Your task to perform on an android device: Open Youtube and go to the subscriptions tab Image 0: 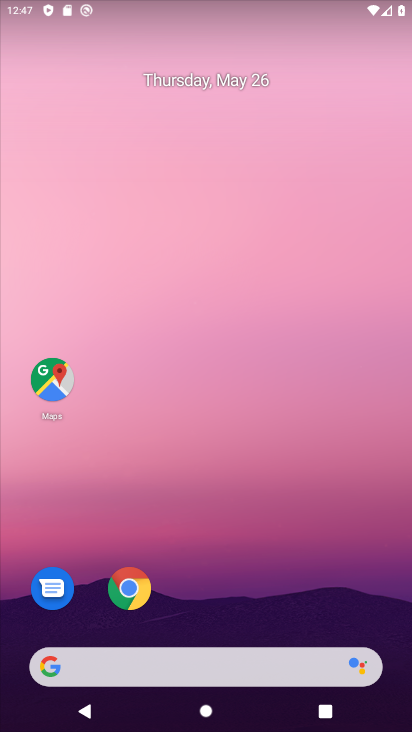
Step 0: drag from (399, 689) to (319, 216)
Your task to perform on an android device: Open Youtube and go to the subscriptions tab Image 1: 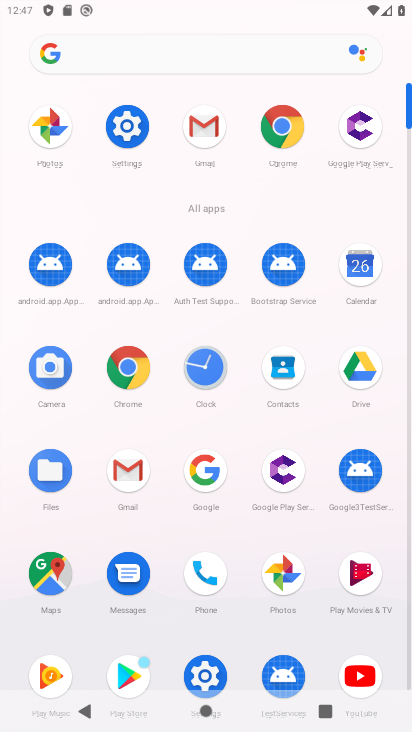
Step 1: click (364, 663)
Your task to perform on an android device: Open Youtube and go to the subscriptions tab Image 2: 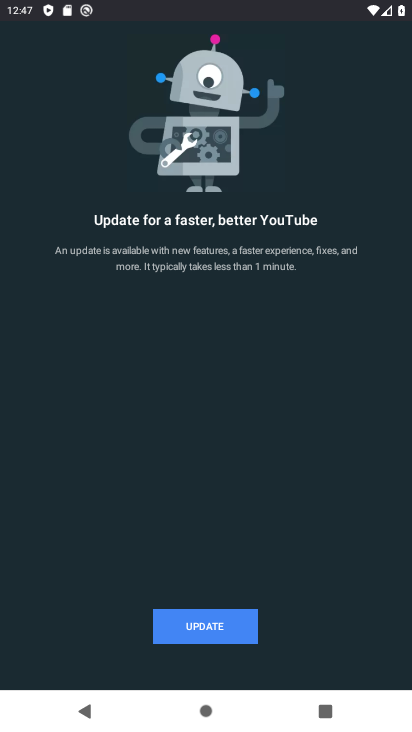
Step 2: click (195, 629)
Your task to perform on an android device: Open Youtube and go to the subscriptions tab Image 3: 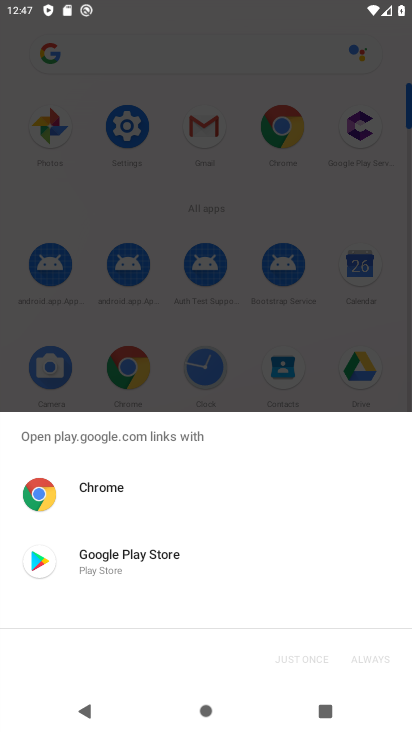
Step 3: click (92, 550)
Your task to perform on an android device: Open Youtube and go to the subscriptions tab Image 4: 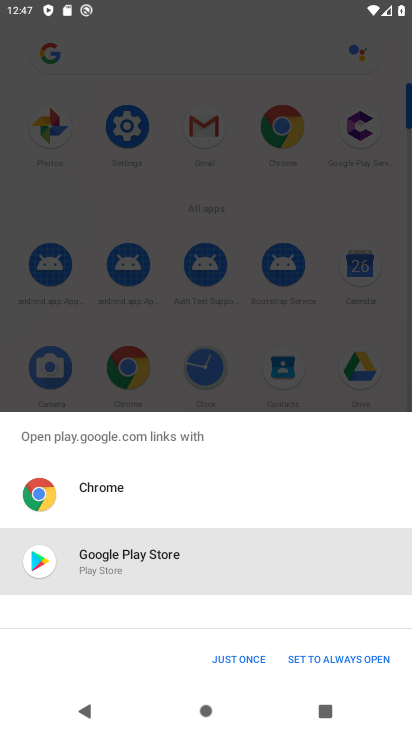
Step 4: click (234, 661)
Your task to perform on an android device: Open Youtube and go to the subscriptions tab Image 5: 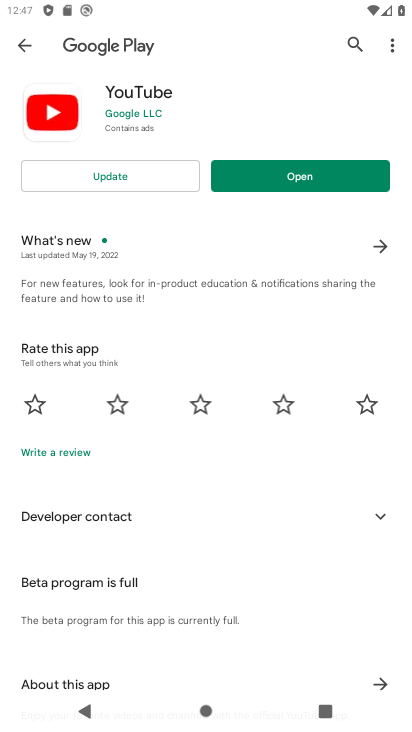
Step 5: click (147, 175)
Your task to perform on an android device: Open Youtube and go to the subscriptions tab Image 6: 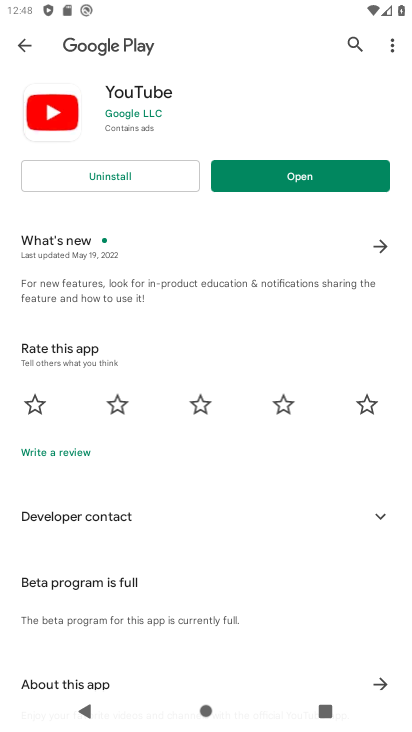
Step 6: click (324, 186)
Your task to perform on an android device: Open Youtube and go to the subscriptions tab Image 7: 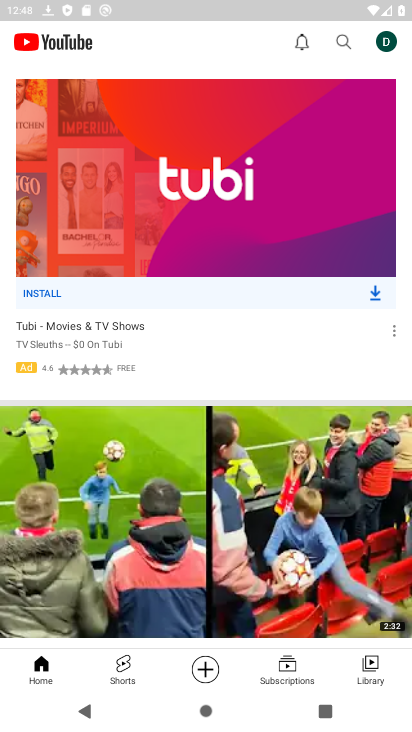
Step 7: click (279, 660)
Your task to perform on an android device: Open Youtube and go to the subscriptions tab Image 8: 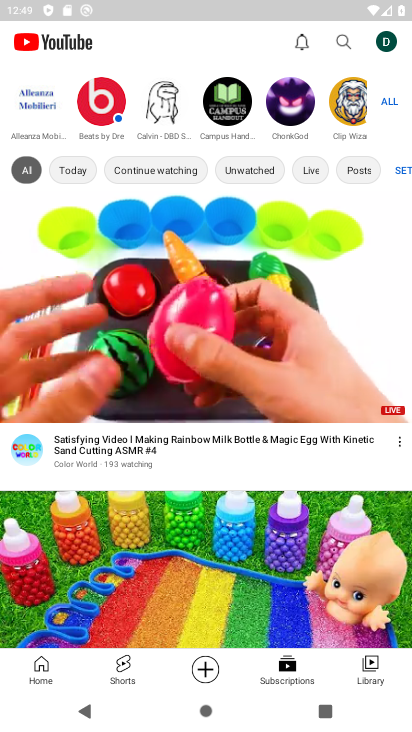
Step 8: task complete